Your task to perform on an android device: Open calendar and show me the third week of next month Image 0: 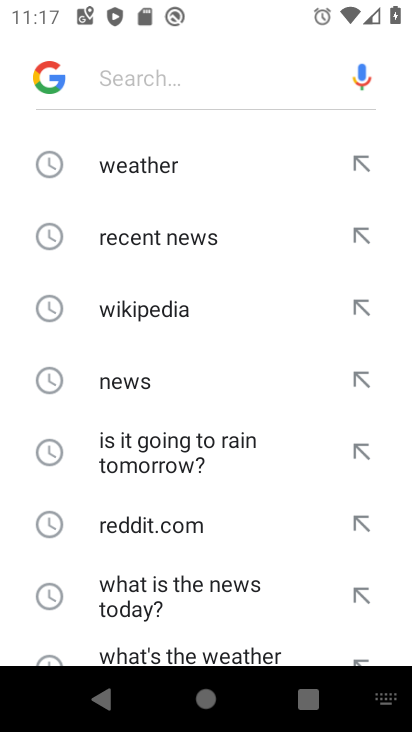
Step 0: press home button
Your task to perform on an android device: Open calendar and show me the third week of next month Image 1: 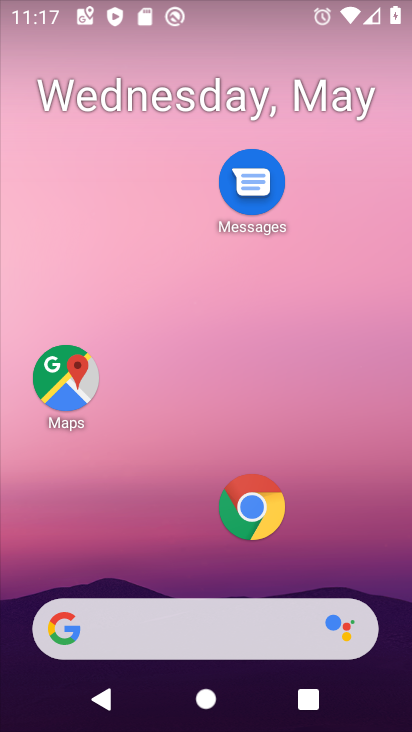
Step 1: drag from (192, 572) to (263, 25)
Your task to perform on an android device: Open calendar and show me the third week of next month Image 2: 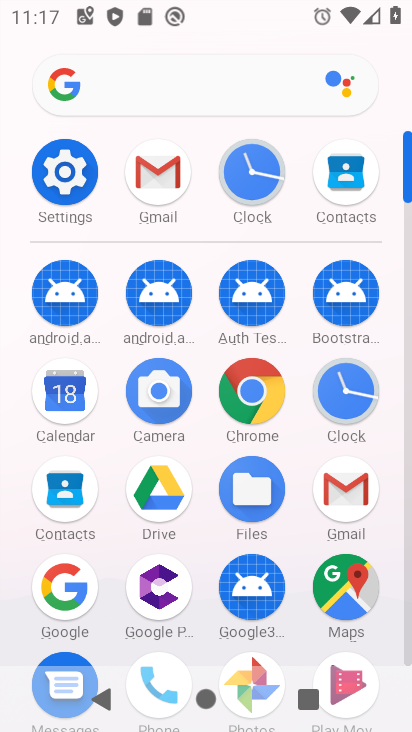
Step 2: click (64, 391)
Your task to perform on an android device: Open calendar and show me the third week of next month Image 3: 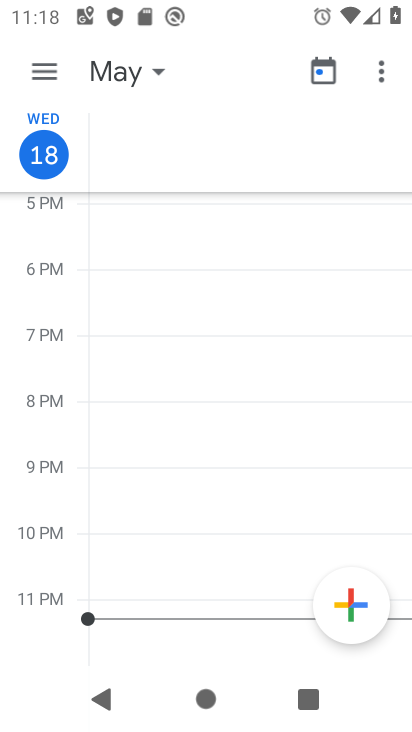
Step 3: click (149, 69)
Your task to perform on an android device: Open calendar and show me the third week of next month Image 4: 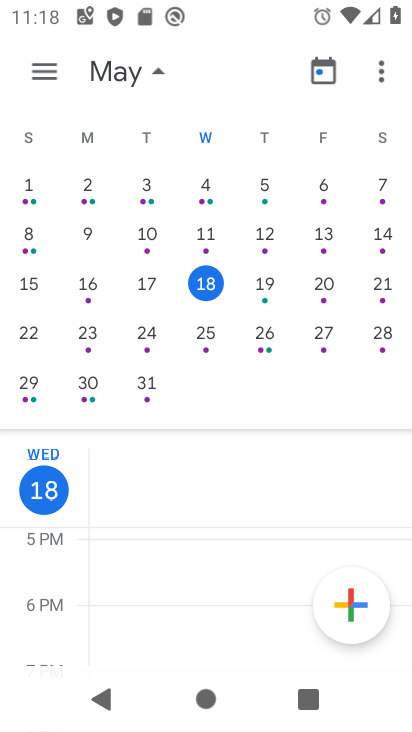
Step 4: drag from (350, 278) to (62, 238)
Your task to perform on an android device: Open calendar and show me the third week of next month Image 5: 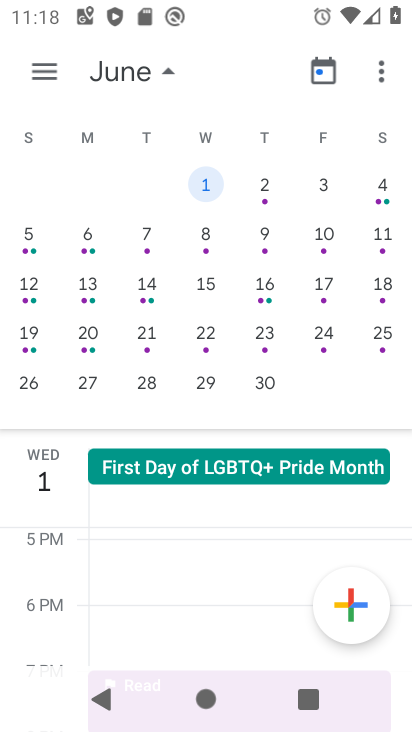
Step 5: click (31, 284)
Your task to perform on an android device: Open calendar and show me the third week of next month Image 6: 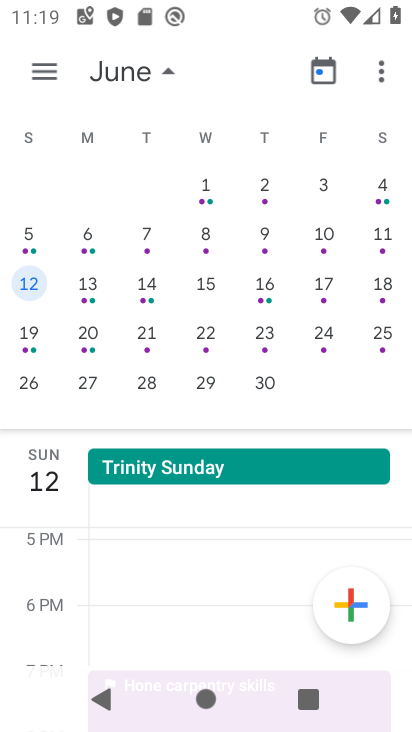
Step 6: click (65, 457)
Your task to perform on an android device: Open calendar and show me the third week of next month Image 7: 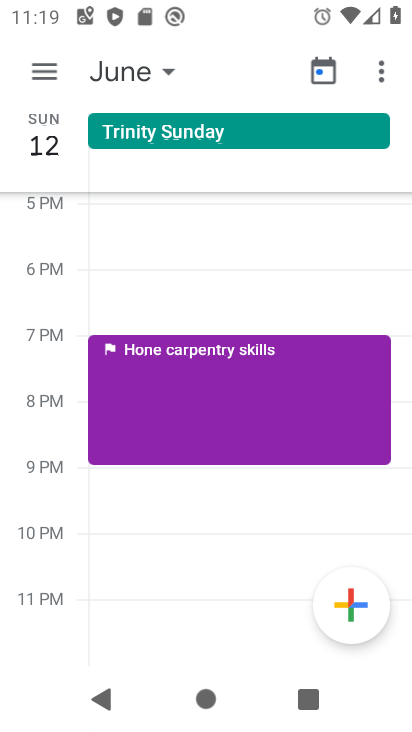
Step 7: click (64, 163)
Your task to perform on an android device: Open calendar and show me the third week of next month Image 8: 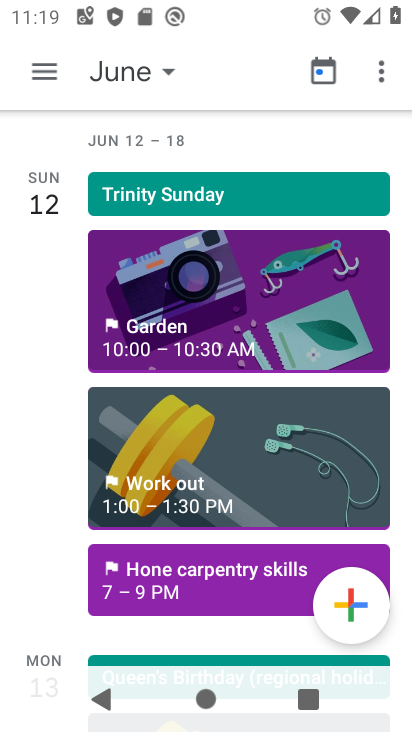
Step 8: task complete